Your task to perform on an android device: set the stopwatch Image 0: 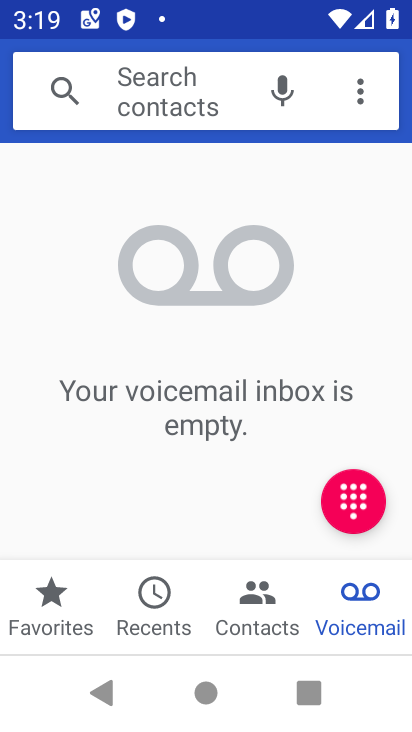
Step 0: press home button
Your task to perform on an android device: set the stopwatch Image 1: 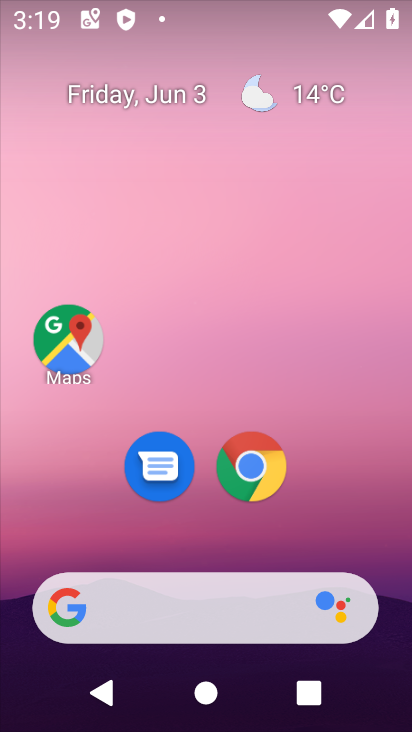
Step 1: drag from (307, 533) to (302, 106)
Your task to perform on an android device: set the stopwatch Image 2: 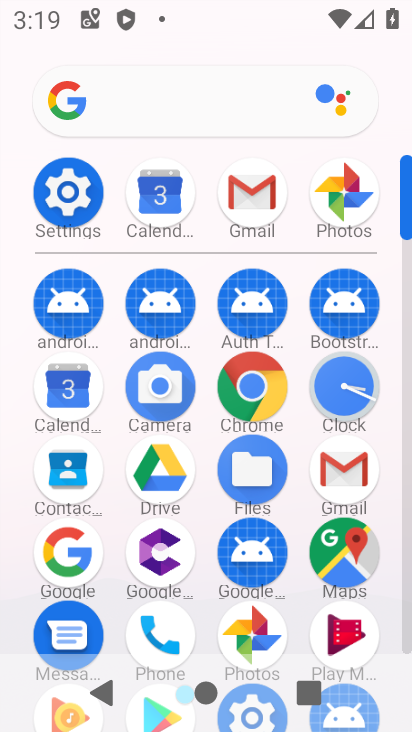
Step 2: click (334, 377)
Your task to perform on an android device: set the stopwatch Image 3: 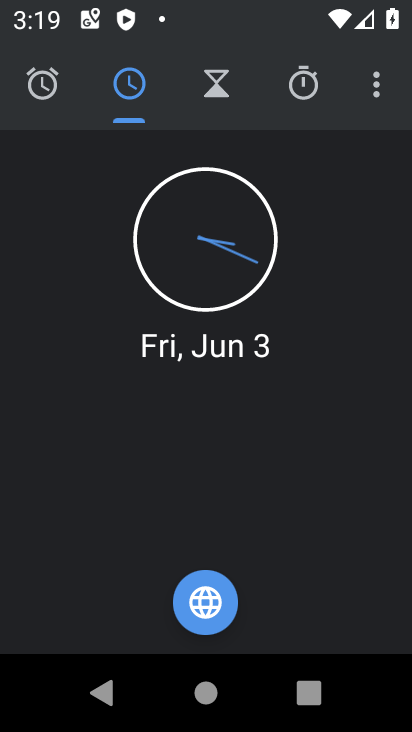
Step 3: click (215, 81)
Your task to perform on an android device: set the stopwatch Image 4: 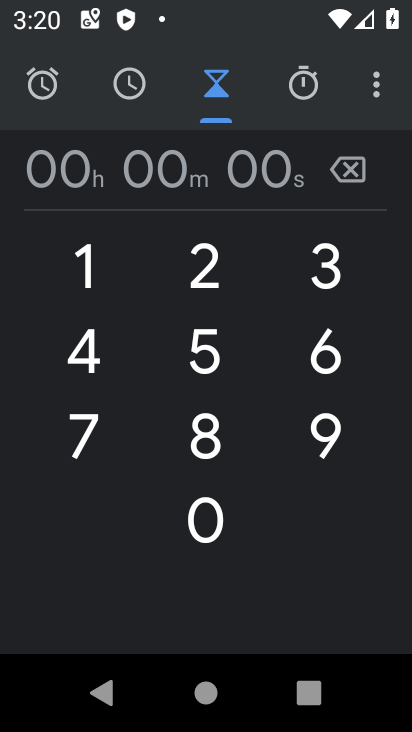
Step 4: click (197, 368)
Your task to perform on an android device: set the stopwatch Image 5: 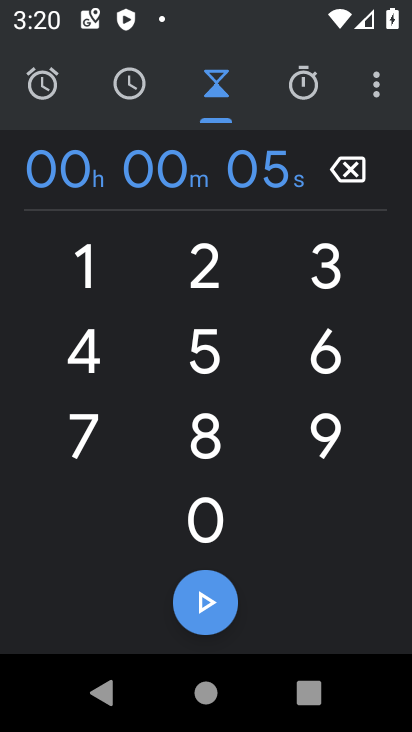
Step 5: click (348, 164)
Your task to perform on an android device: set the stopwatch Image 6: 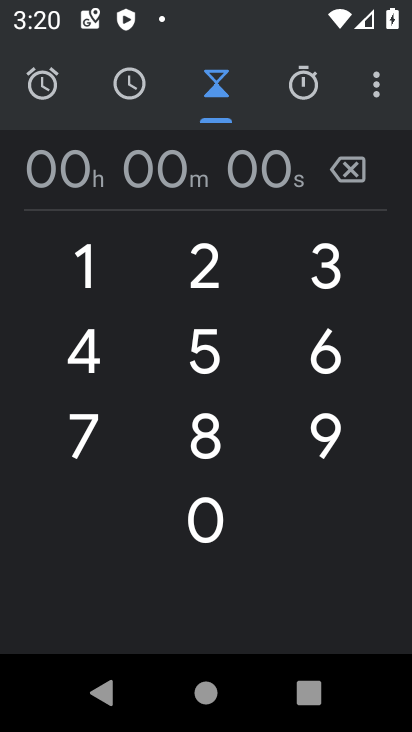
Step 6: click (190, 510)
Your task to perform on an android device: set the stopwatch Image 7: 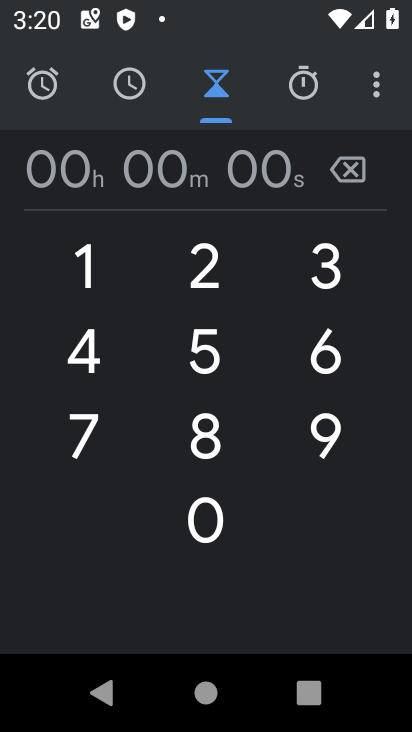
Step 7: click (66, 245)
Your task to perform on an android device: set the stopwatch Image 8: 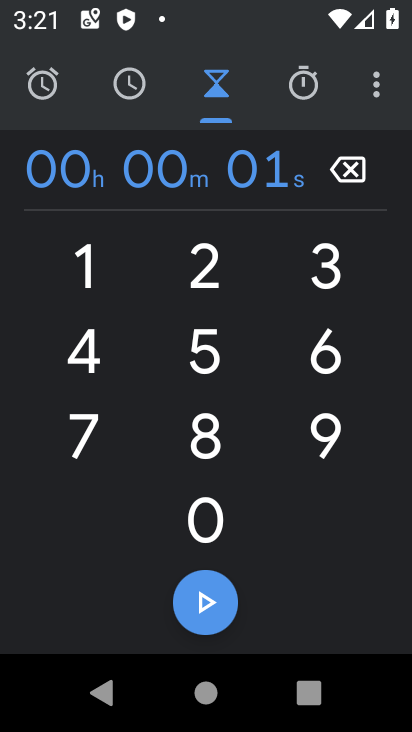
Step 8: click (194, 260)
Your task to perform on an android device: set the stopwatch Image 9: 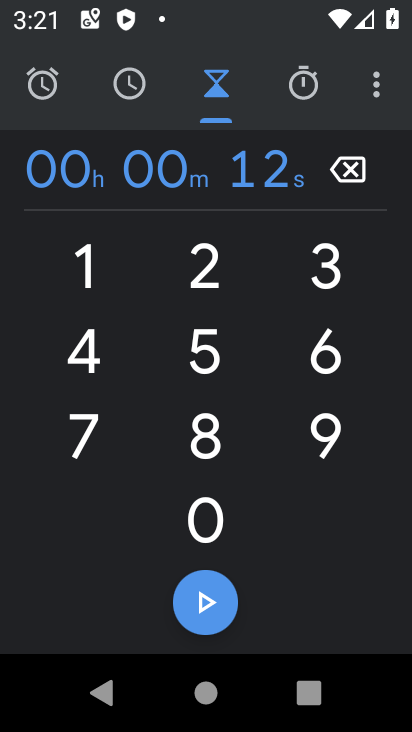
Step 9: click (201, 532)
Your task to perform on an android device: set the stopwatch Image 10: 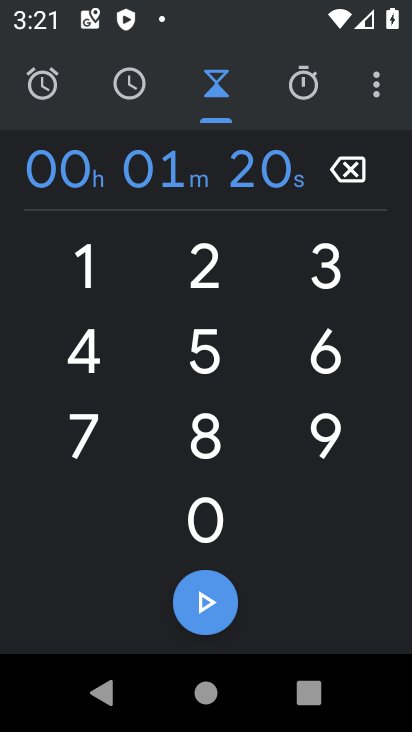
Step 10: click (179, 344)
Your task to perform on an android device: set the stopwatch Image 11: 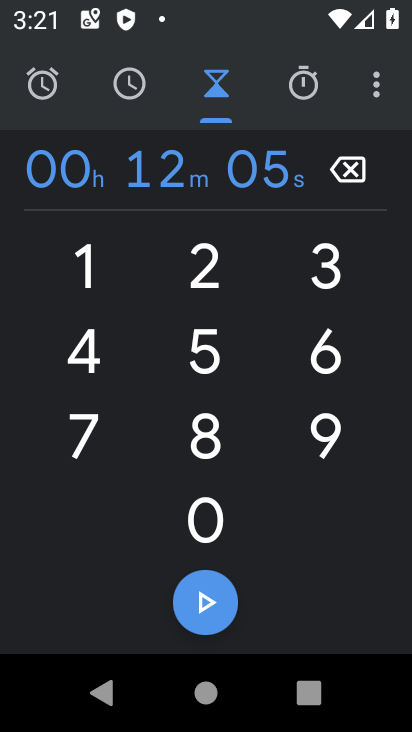
Step 11: click (319, 425)
Your task to perform on an android device: set the stopwatch Image 12: 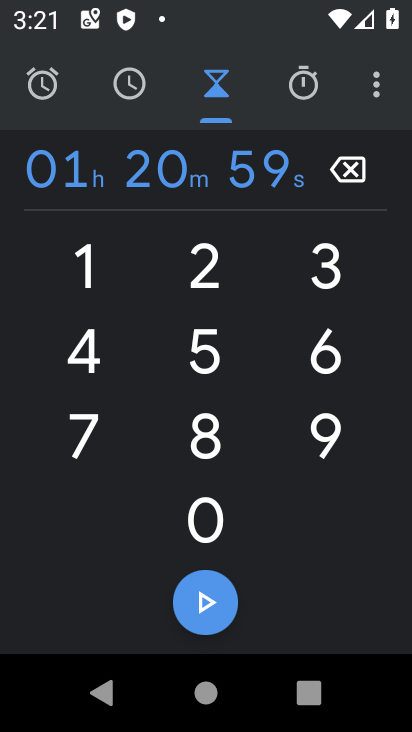
Step 12: click (206, 599)
Your task to perform on an android device: set the stopwatch Image 13: 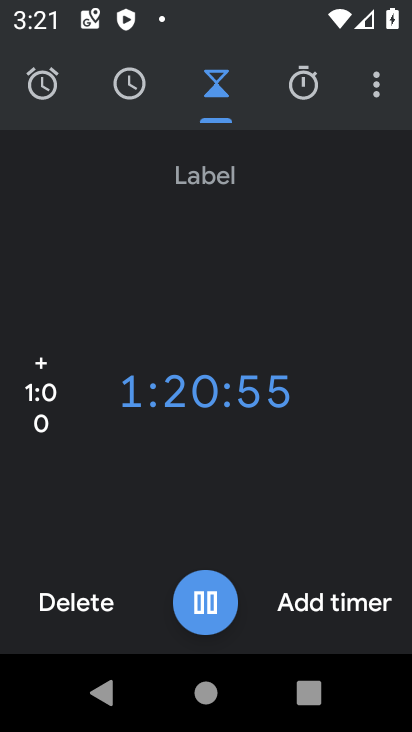
Step 13: task complete